Your task to perform on an android device: Find coffee shops on Maps Image 0: 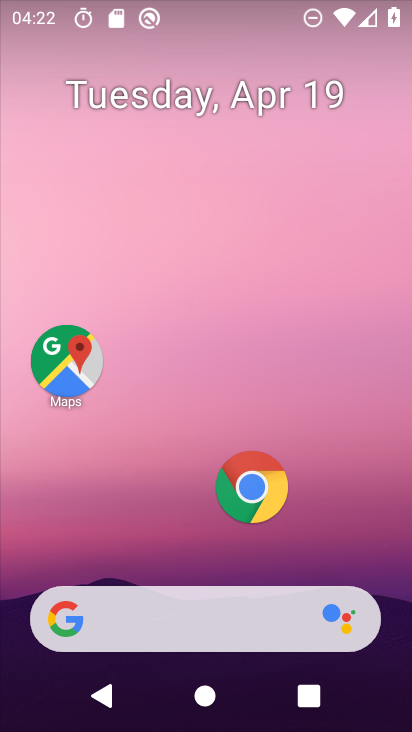
Step 0: press home button
Your task to perform on an android device: Find coffee shops on Maps Image 1: 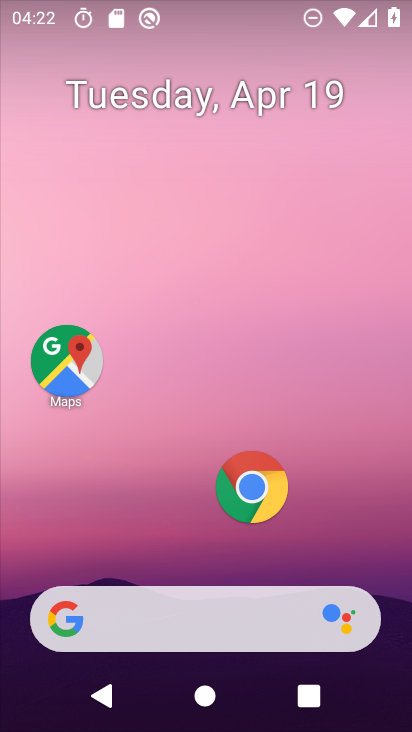
Step 1: click (51, 338)
Your task to perform on an android device: Find coffee shops on Maps Image 2: 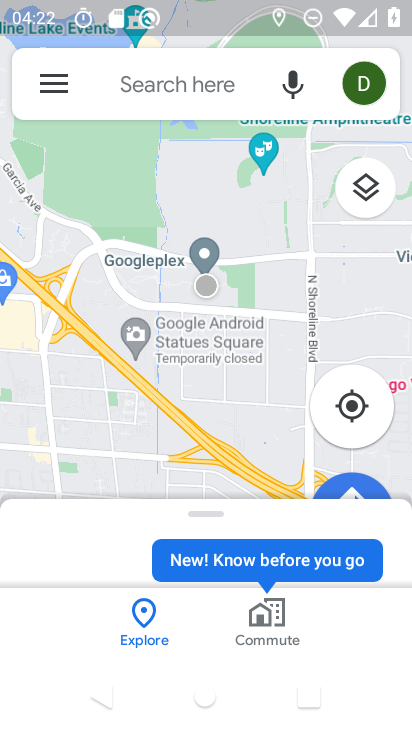
Step 2: click (217, 83)
Your task to perform on an android device: Find coffee shops on Maps Image 3: 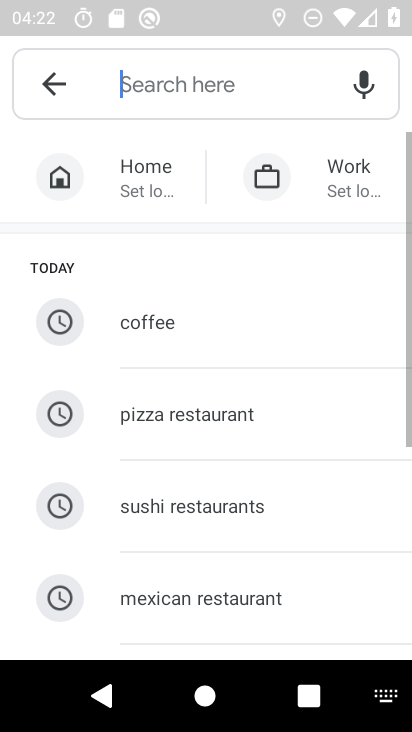
Step 3: click (198, 82)
Your task to perform on an android device: Find coffee shops on Maps Image 4: 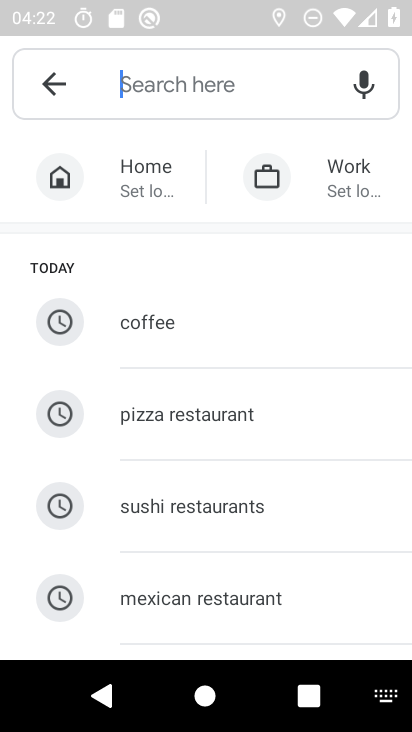
Step 4: type "coffee shops"
Your task to perform on an android device: Find coffee shops on Maps Image 5: 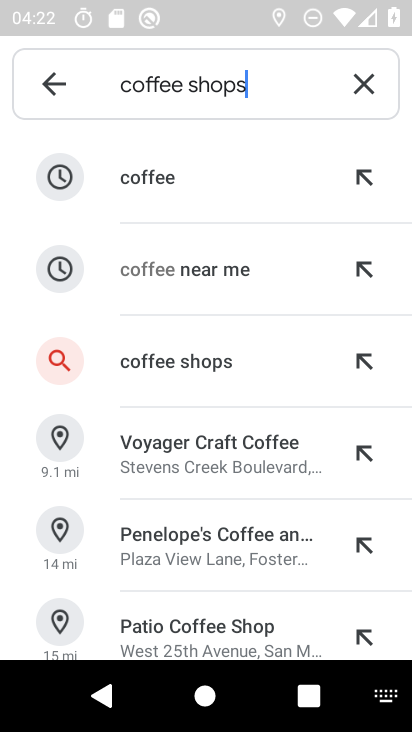
Step 5: click (233, 364)
Your task to perform on an android device: Find coffee shops on Maps Image 6: 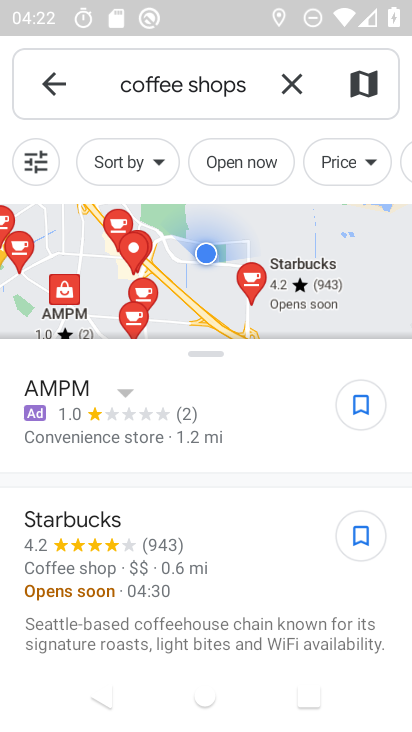
Step 6: task complete